Your task to perform on an android device: Go to wifi settings Image 0: 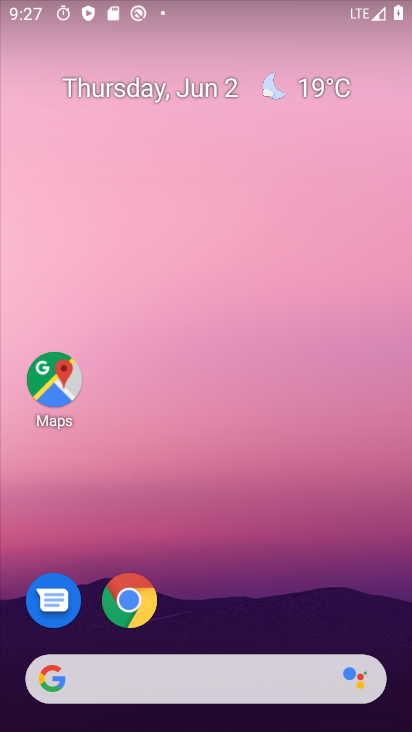
Step 0: drag from (214, 636) to (215, 205)
Your task to perform on an android device: Go to wifi settings Image 1: 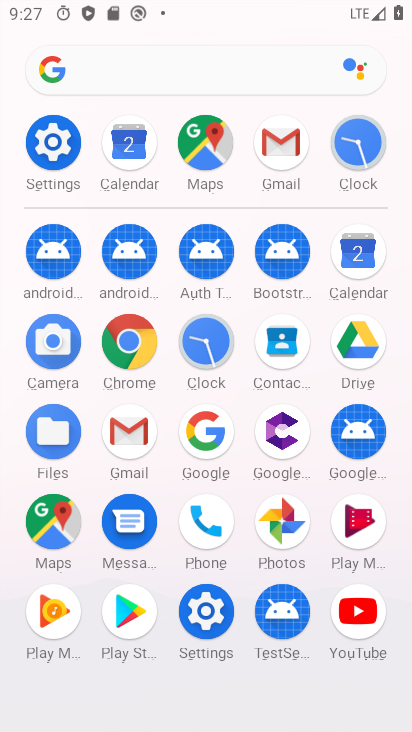
Step 1: click (73, 141)
Your task to perform on an android device: Go to wifi settings Image 2: 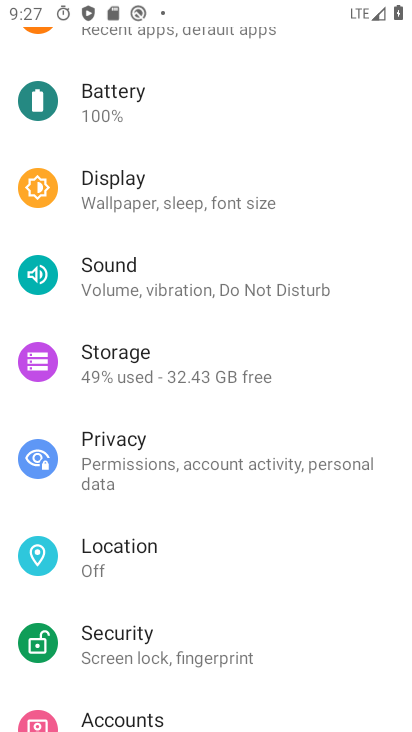
Step 2: drag from (155, 124) to (193, 517)
Your task to perform on an android device: Go to wifi settings Image 3: 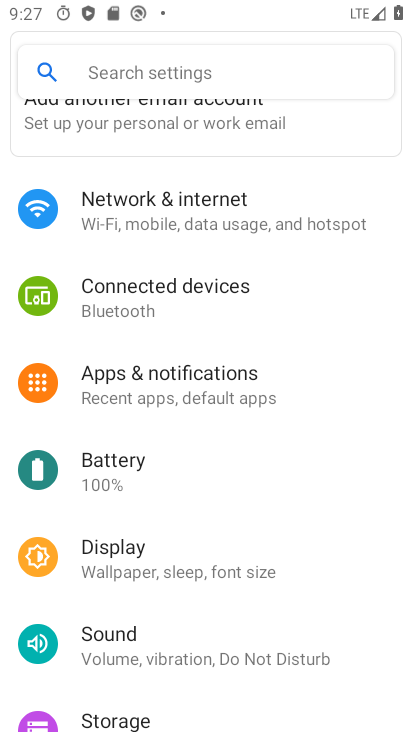
Step 3: click (166, 204)
Your task to perform on an android device: Go to wifi settings Image 4: 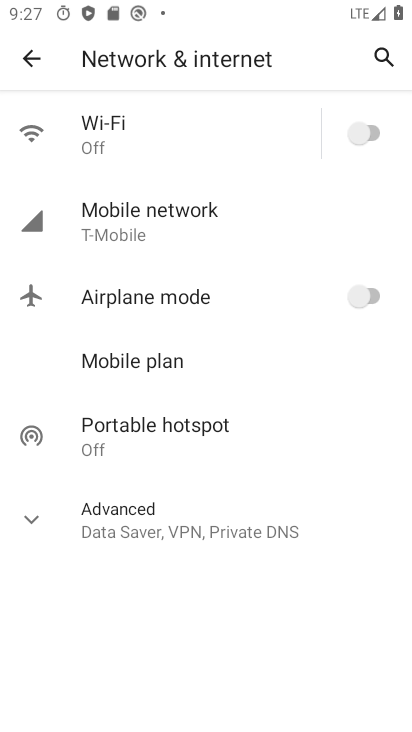
Step 4: click (146, 138)
Your task to perform on an android device: Go to wifi settings Image 5: 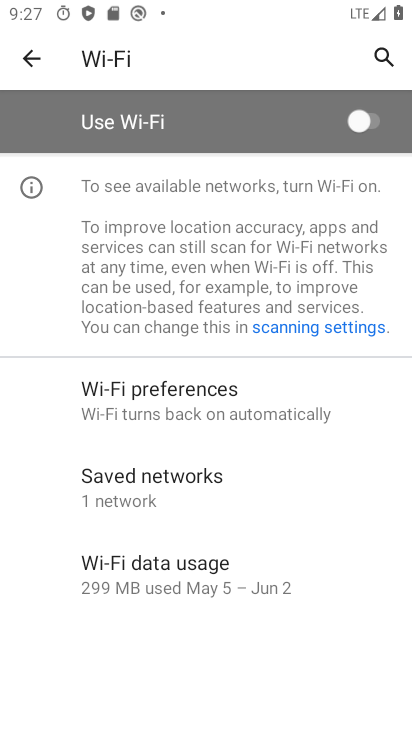
Step 5: task complete